Your task to perform on an android device: turn off translation in the chrome app Image 0: 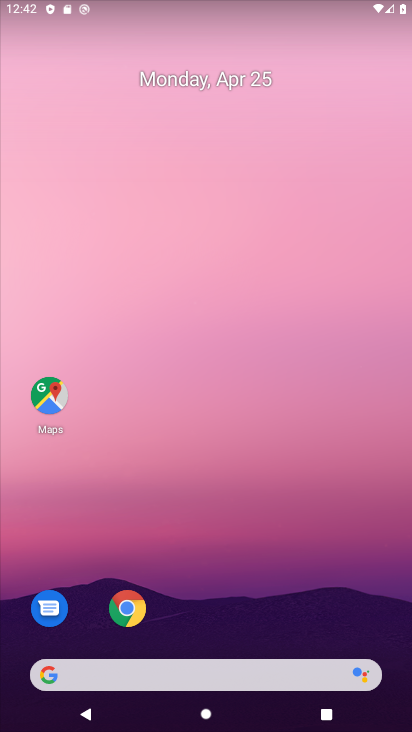
Step 0: drag from (311, 64) to (395, 11)
Your task to perform on an android device: turn off translation in the chrome app Image 1: 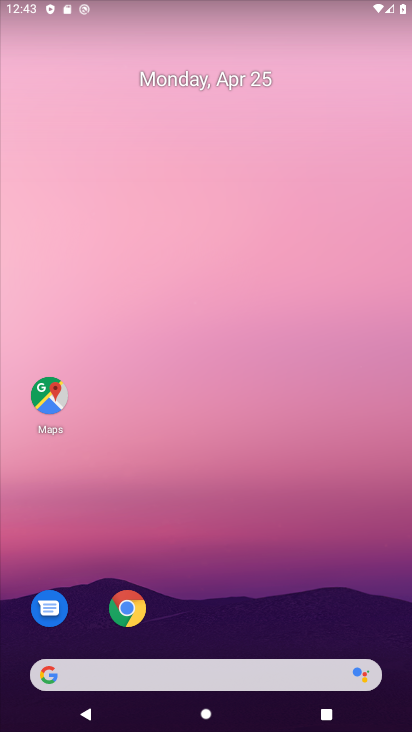
Step 1: drag from (253, 195) to (242, 13)
Your task to perform on an android device: turn off translation in the chrome app Image 2: 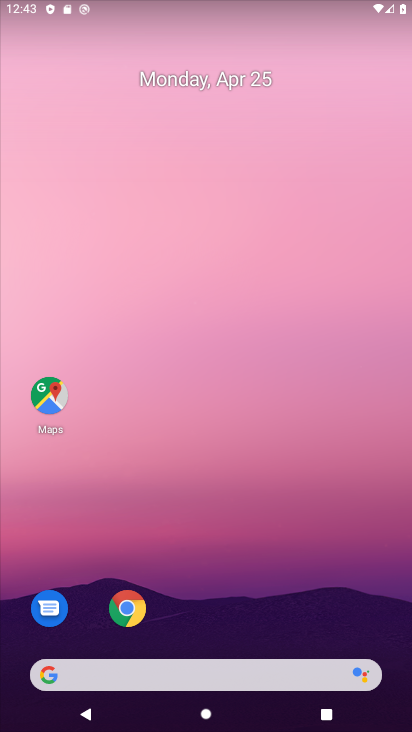
Step 2: drag from (275, 613) to (247, 9)
Your task to perform on an android device: turn off translation in the chrome app Image 3: 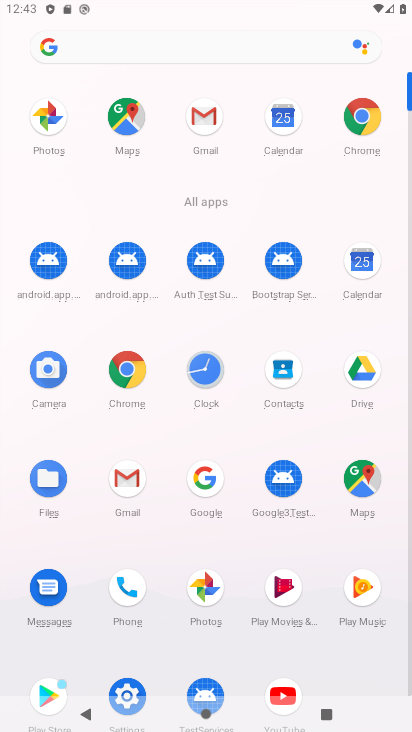
Step 3: click (127, 379)
Your task to perform on an android device: turn off translation in the chrome app Image 4: 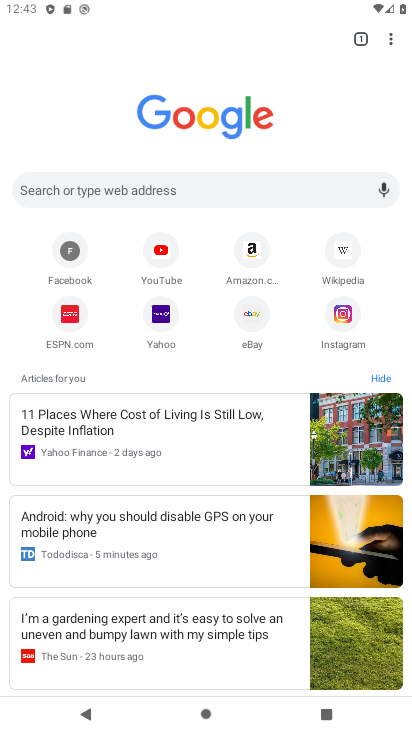
Step 4: click (392, 35)
Your task to perform on an android device: turn off translation in the chrome app Image 5: 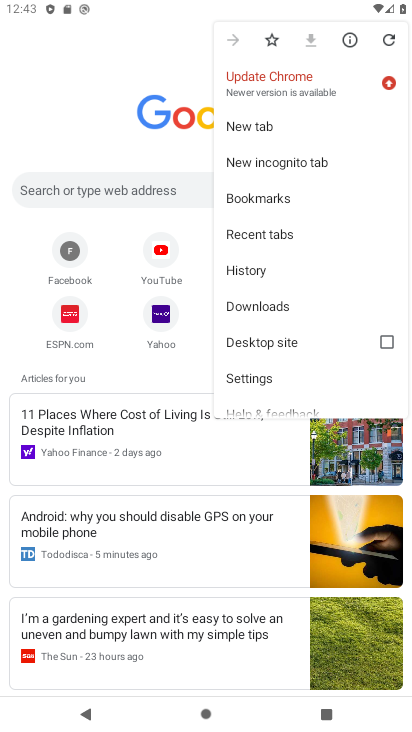
Step 5: click (251, 374)
Your task to perform on an android device: turn off translation in the chrome app Image 6: 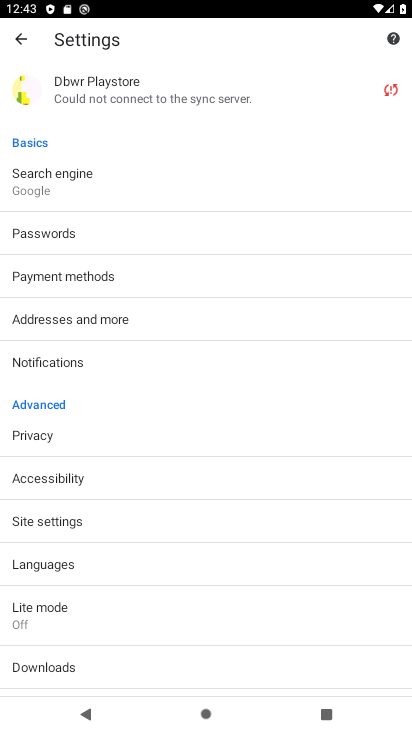
Step 6: click (48, 574)
Your task to perform on an android device: turn off translation in the chrome app Image 7: 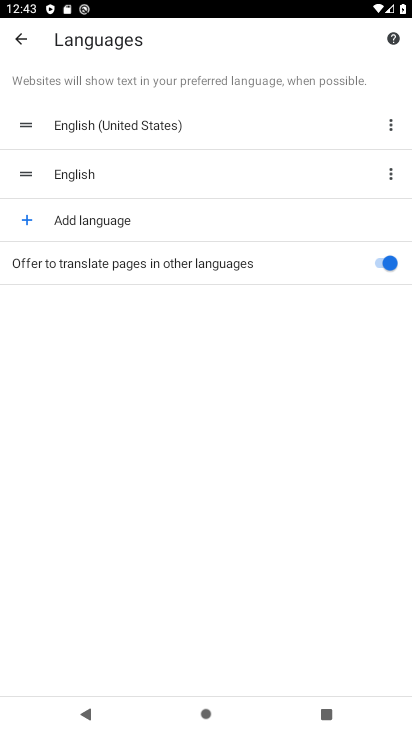
Step 7: click (372, 255)
Your task to perform on an android device: turn off translation in the chrome app Image 8: 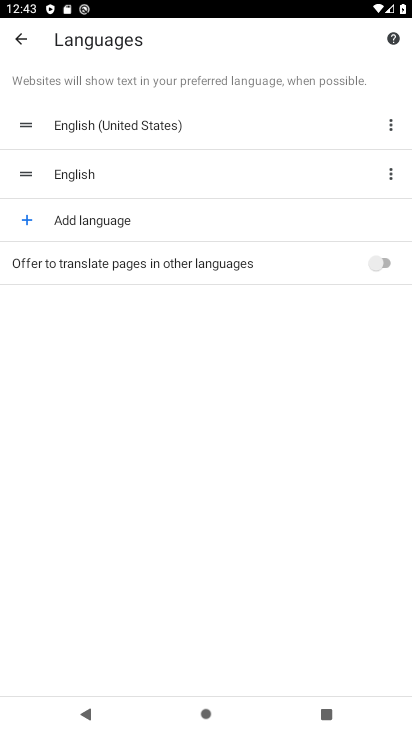
Step 8: task complete